Your task to perform on an android device: Open Google Image 0: 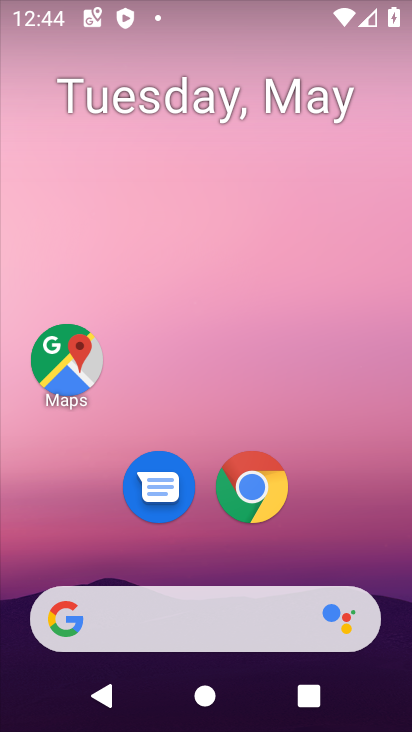
Step 0: drag from (146, 488) to (150, 131)
Your task to perform on an android device: Open Google Image 1: 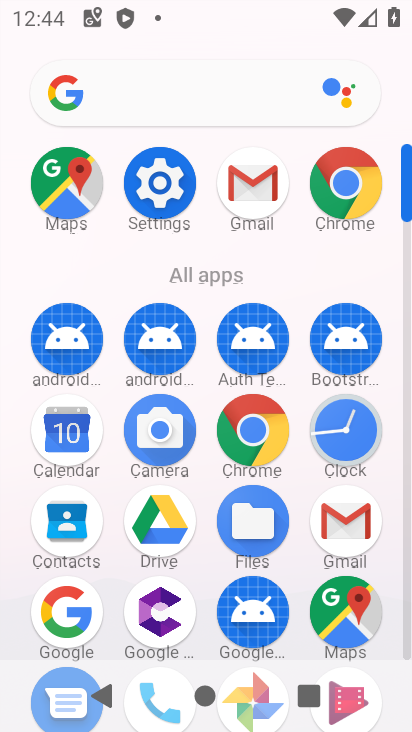
Step 1: click (74, 608)
Your task to perform on an android device: Open Google Image 2: 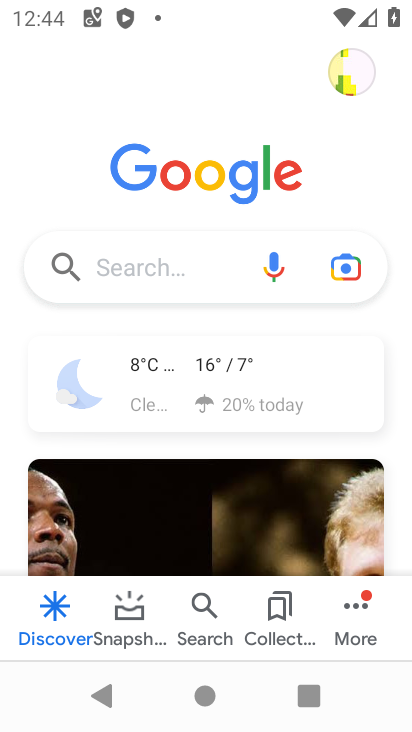
Step 2: task complete